Your task to perform on an android device: find snoozed emails in the gmail app Image 0: 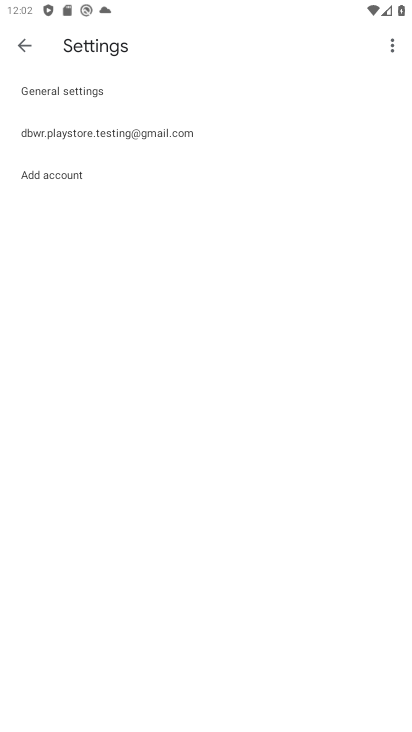
Step 0: press home button
Your task to perform on an android device: find snoozed emails in the gmail app Image 1: 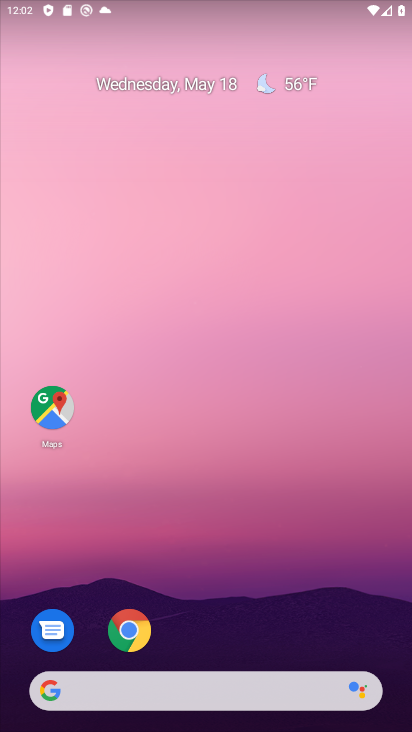
Step 1: drag from (267, 427) to (289, 195)
Your task to perform on an android device: find snoozed emails in the gmail app Image 2: 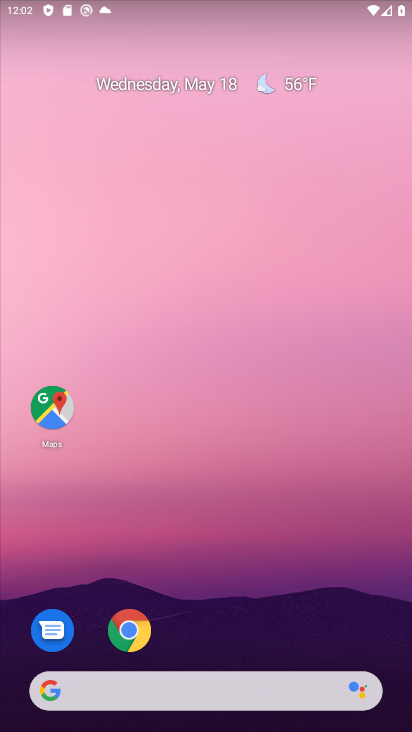
Step 2: drag from (255, 625) to (317, 238)
Your task to perform on an android device: find snoozed emails in the gmail app Image 3: 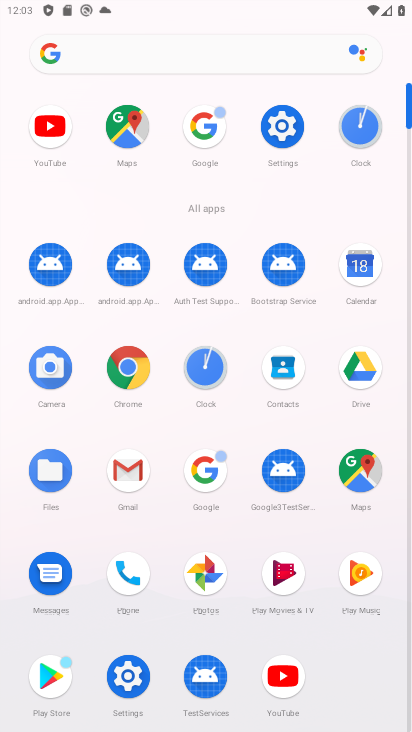
Step 3: click (114, 462)
Your task to perform on an android device: find snoozed emails in the gmail app Image 4: 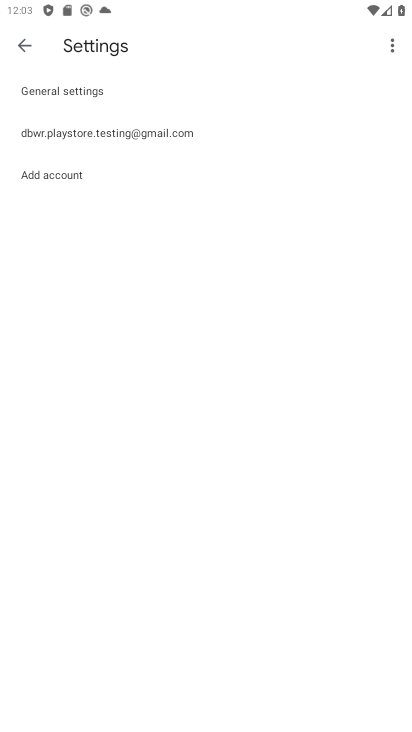
Step 4: press back button
Your task to perform on an android device: find snoozed emails in the gmail app Image 5: 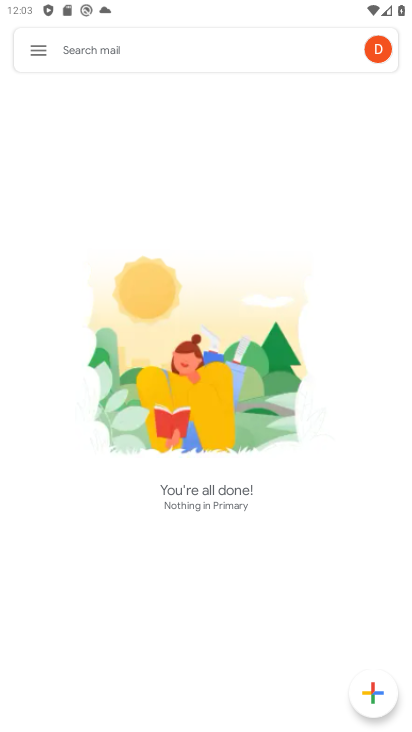
Step 5: click (28, 51)
Your task to perform on an android device: find snoozed emails in the gmail app Image 6: 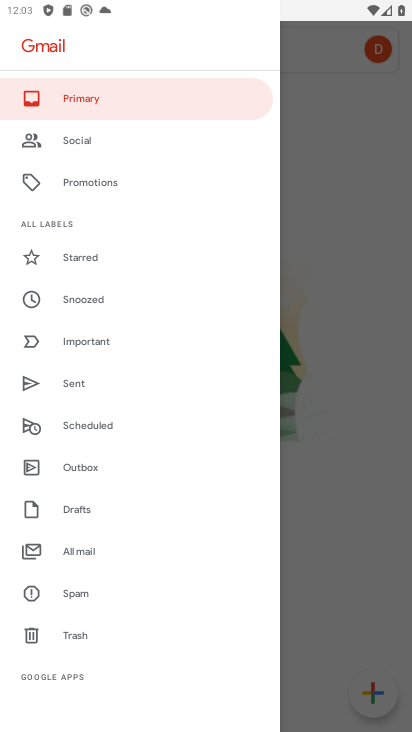
Step 6: click (77, 303)
Your task to perform on an android device: find snoozed emails in the gmail app Image 7: 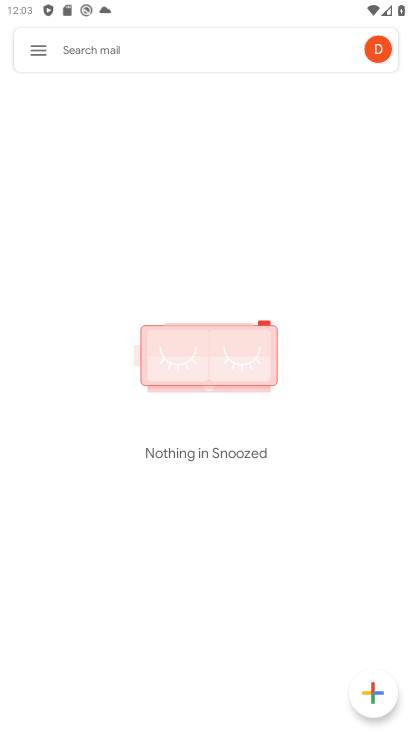
Step 7: task complete